Your task to perform on an android device: delete the emails in spam in the gmail app Image 0: 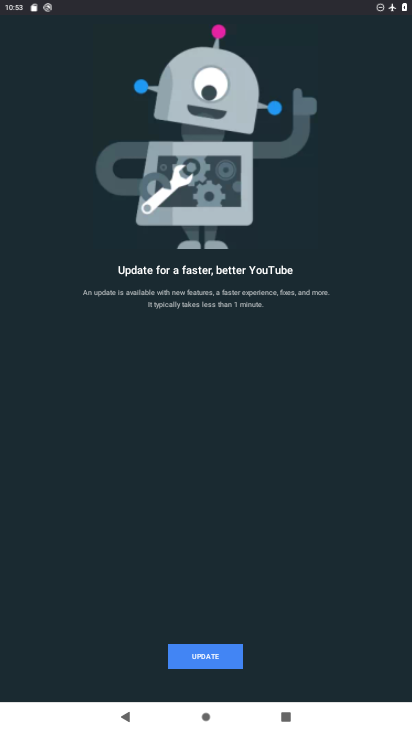
Step 0: press home button
Your task to perform on an android device: delete the emails in spam in the gmail app Image 1: 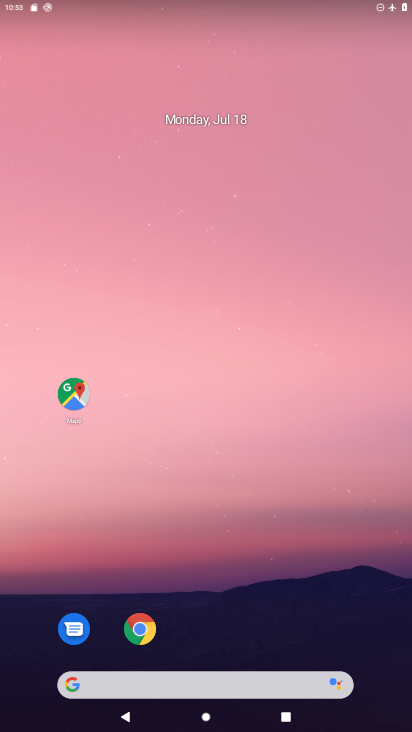
Step 1: drag from (304, 624) to (250, 149)
Your task to perform on an android device: delete the emails in spam in the gmail app Image 2: 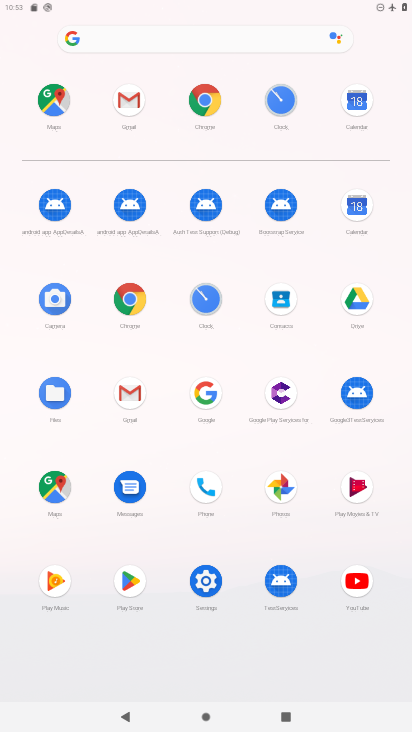
Step 2: click (128, 106)
Your task to perform on an android device: delete the emails in spam in the gmail app Image 3: 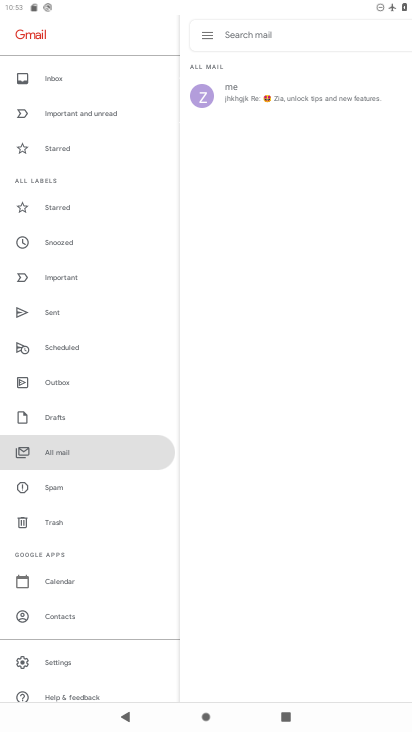
Step 3: click (58, 493)
Your task to perform on an android device: delete the emails in spam in the gmail app Image 4: 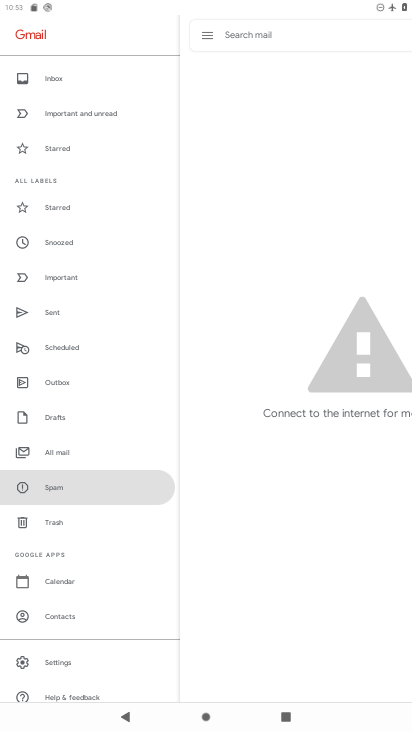
Step 4: task complete